Your task to perform on an android device: Search for seafood restaurants on Google Maps Image 0: 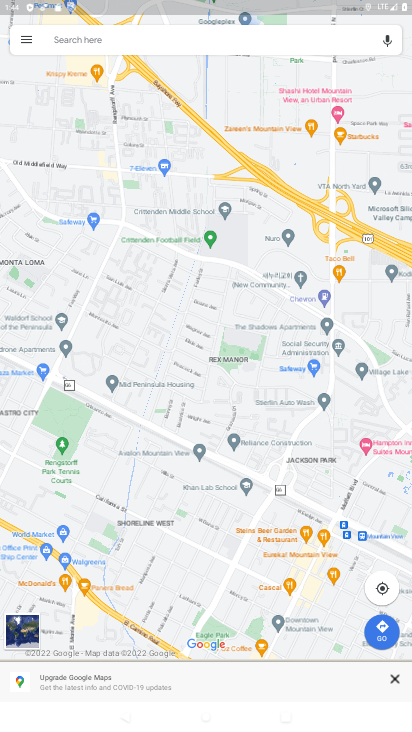
Step 0: press home button
Your task to perform on an android device: Search for seafood restaurants on Google Maps Image 1: 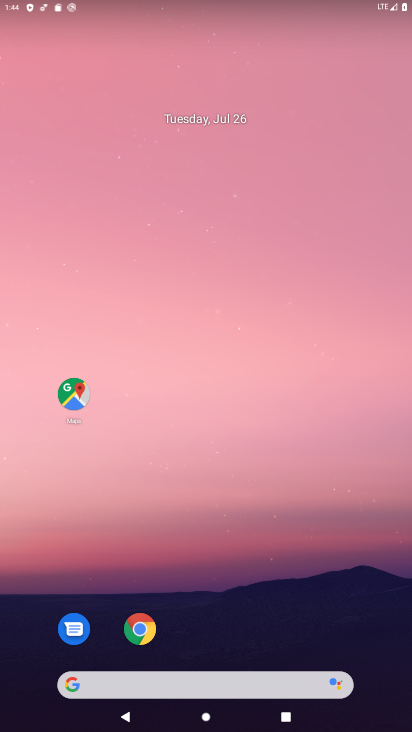
Step 1: click (81, 400)
Your task to perform on an android device: Search for seafood restaurants on Google Maps Image 2: 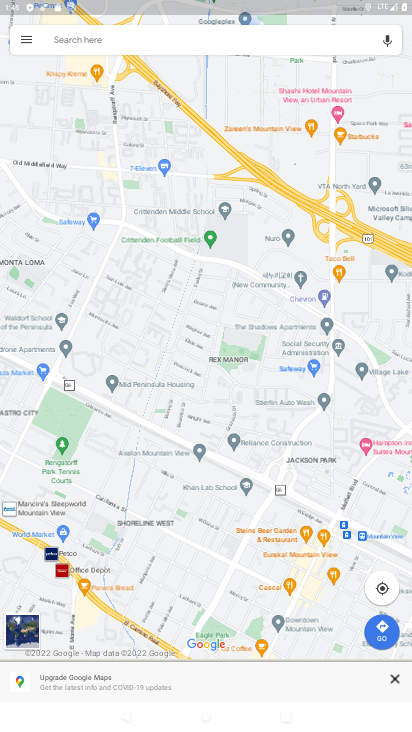
Step 2: click (161, 37)
Your task to perform on an android device: Search for seafood restaurants on Google Maps Image 3: 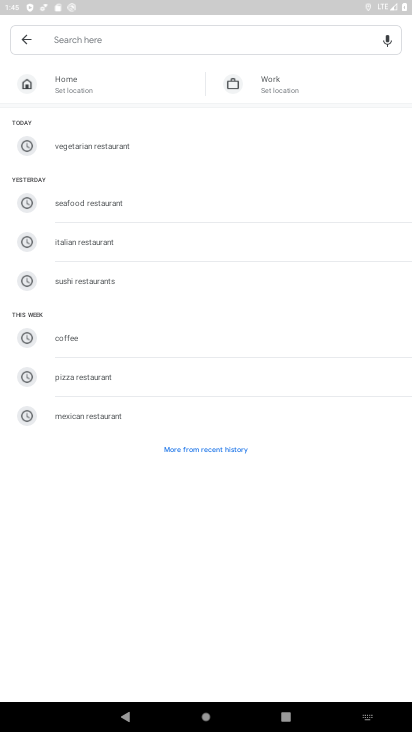
Step 3: type "seafood restaurants"
Your task to perform on an android device: Search for seafood restaurants on Google Maps Image 4: 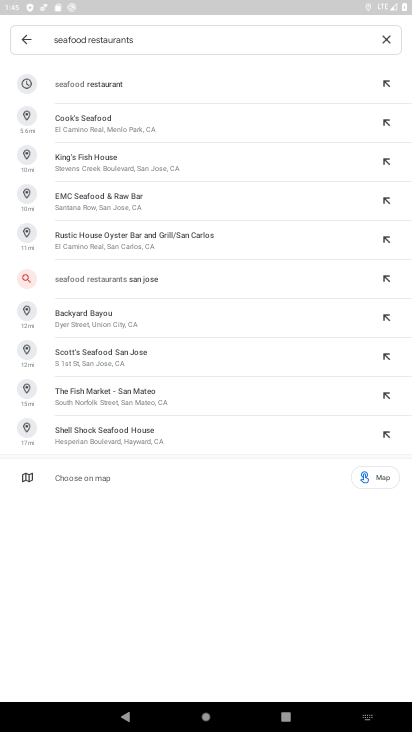
Step 4: click (102, 82)
Your task to perform on an android device: Search for seafood restaurants on Google Maps Image 5: 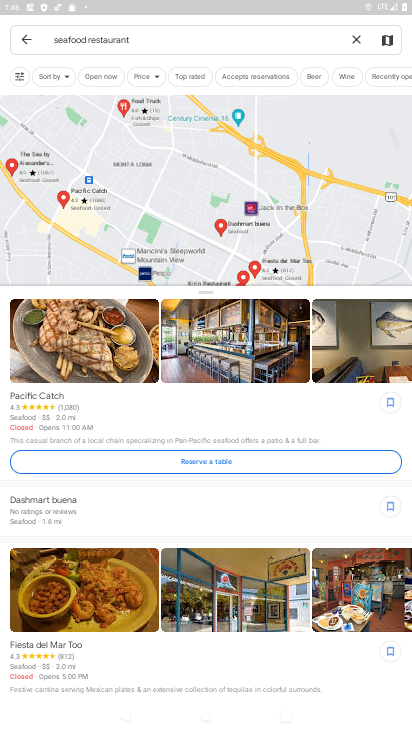
Step 5: task complete